Your task to perform on an android device: Open ESPN.com Image 0: 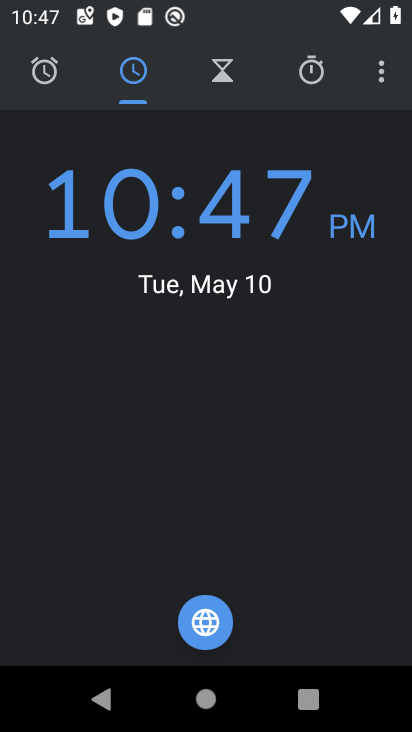
Step 0: press home button
Your task to perform on an android device: Open ESPN.com Image 1: 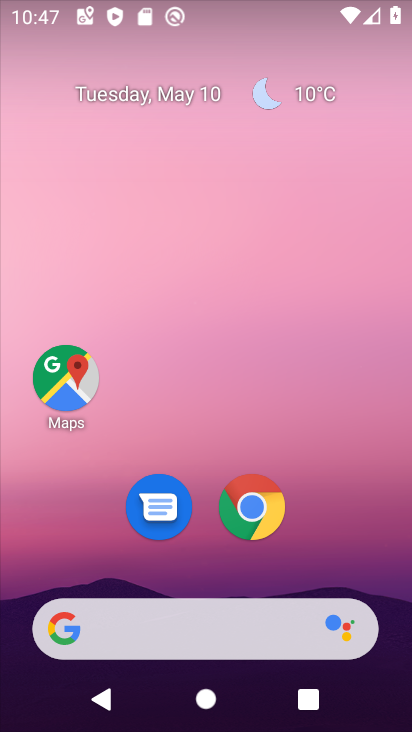
Step 1: click (244, 517)
Your task to perform on an android device: Open ESPN.com Image 2: 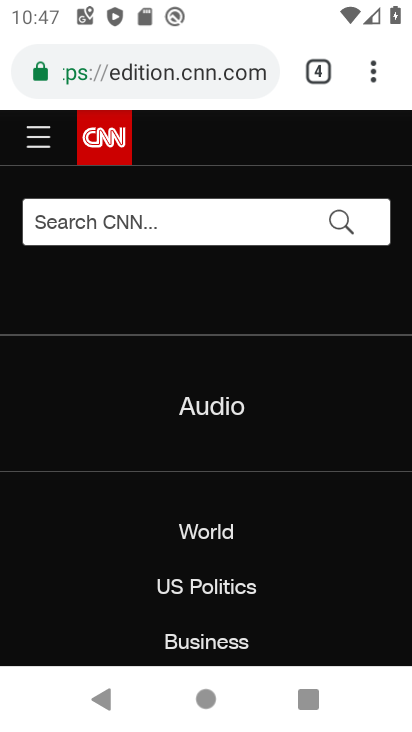
Step 2: click (372, 80)
Your task to perform on an android device: Open ESPN.com Image 3: 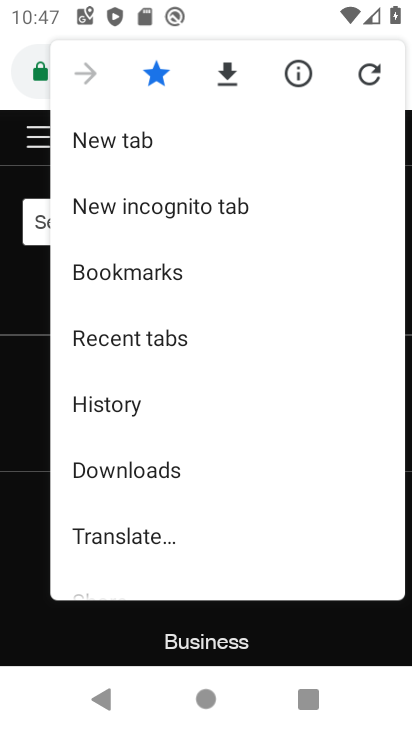
Step 3: click (131, 141)
Your task to perform on an android device: Open ESPN.com Image 4: 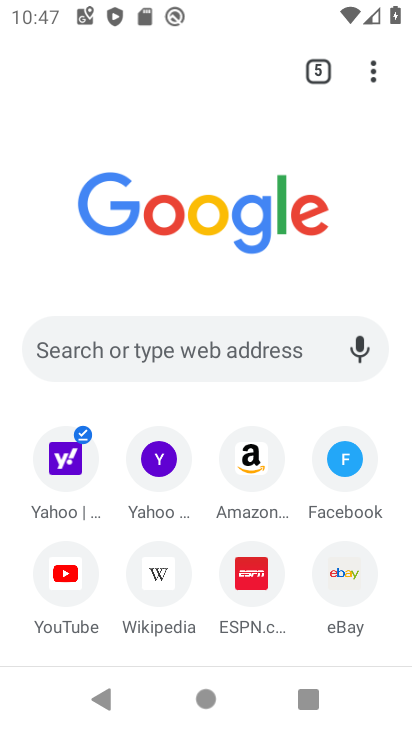
Step 4: click (172, 341)
Your task to perform on an android device: Open ESPN.com Image 5: 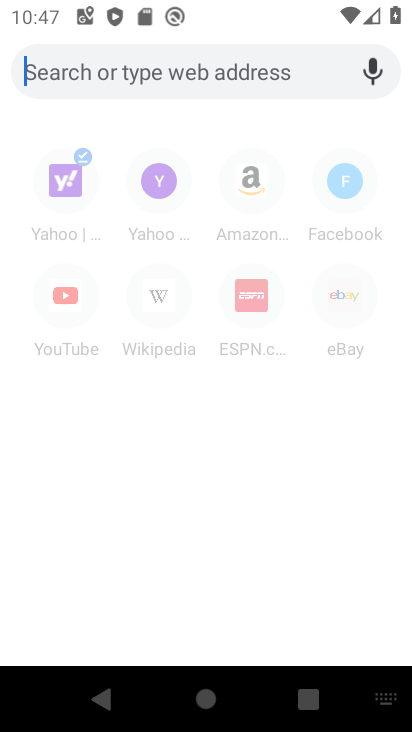
Step 5: type "ESPN.com"
Your task to perform on an android device: Open ESPN.com Image 6: 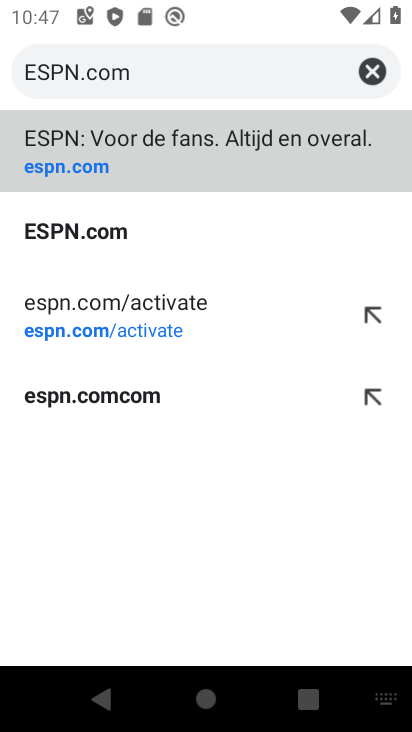
Step 6: click (95, 147)
Your task to perform on an android device: Open ESPN.com Image 7: 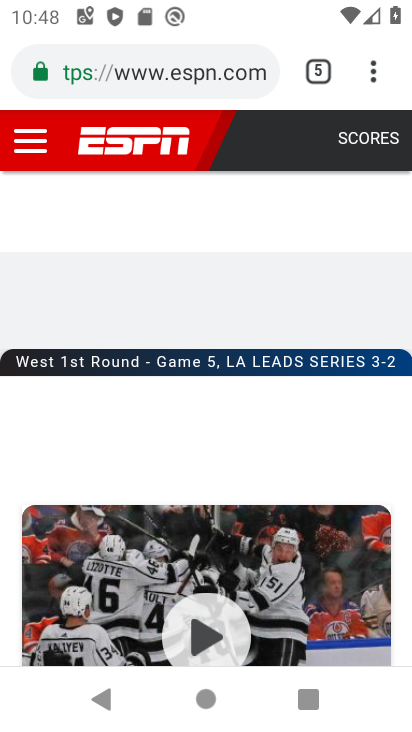
Step 7: task complete